Your task to perform on an android device: see creations saved in the google photos Image 0: 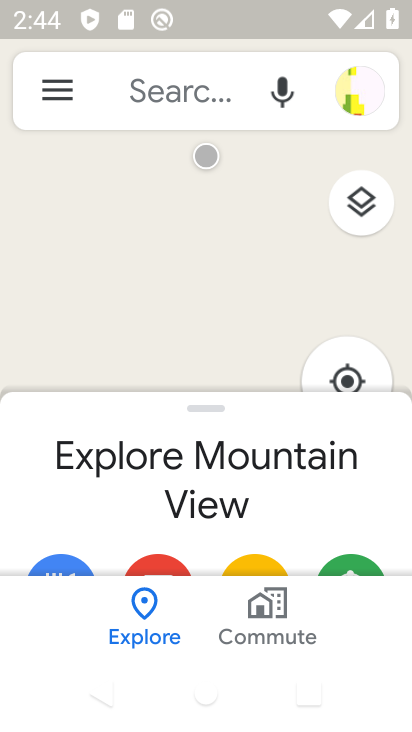
Step 0: press home button
Your task to perform on an android device: see creations saved in the google photos Image 1: 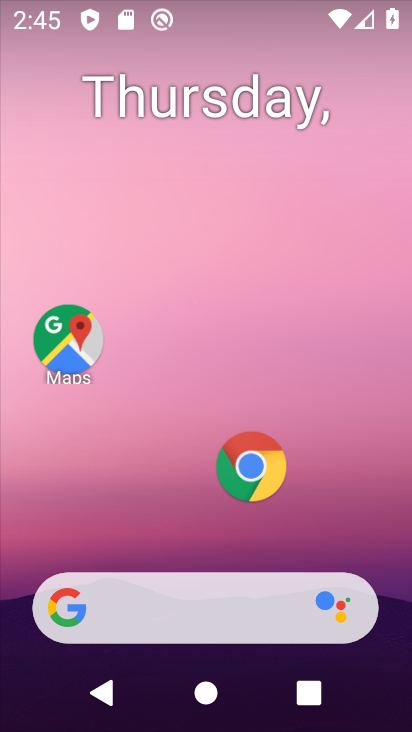
Step 1: drag from (201, 556) to (228, 193)
Your task to perform on an android device: see creations saved in the google photos Image 2: 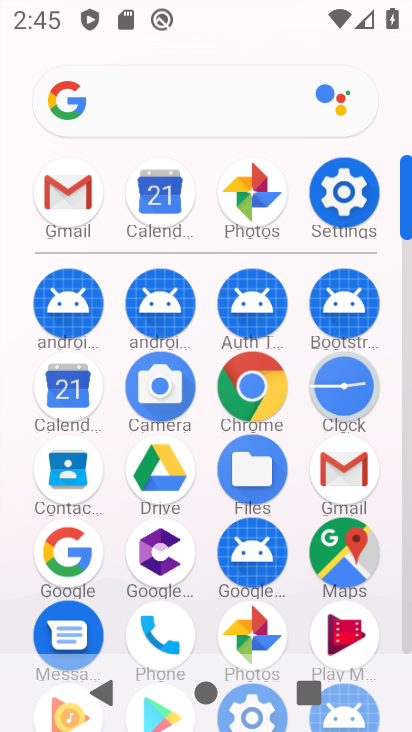
Step 2: click (235, 201)
Your task to perform on an android device: see creations saved in the google photos Image 3: 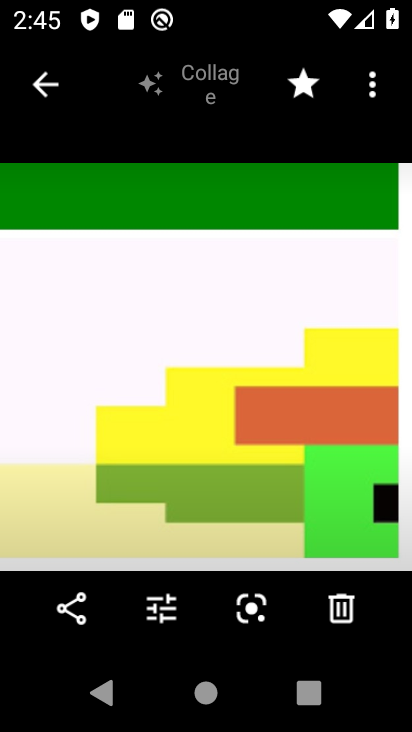
Step 3: click (49, 81)
Your task to perform on an android device: see creations saved in the google photos Image 4: 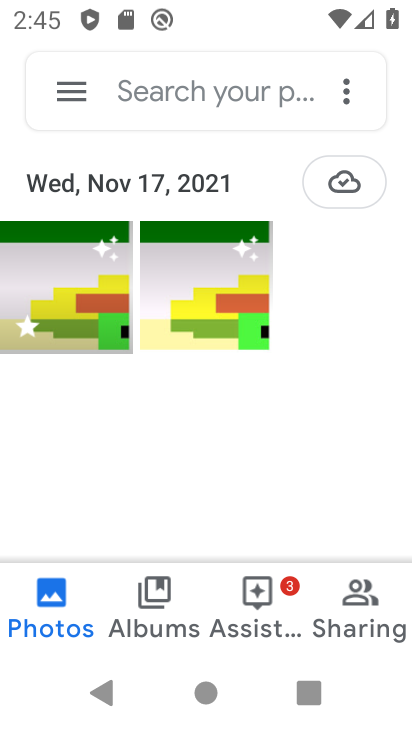
Step 4: click (195, 96)
Your task to perform on an android device: see creations saved in the google photos Image 5: 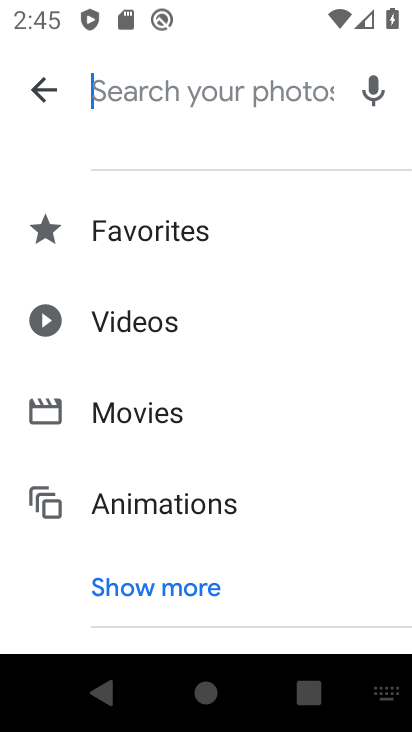
Step 5: click (199, 590)
Your task to perform on an android device: see creations saved in the google photos Image 6: 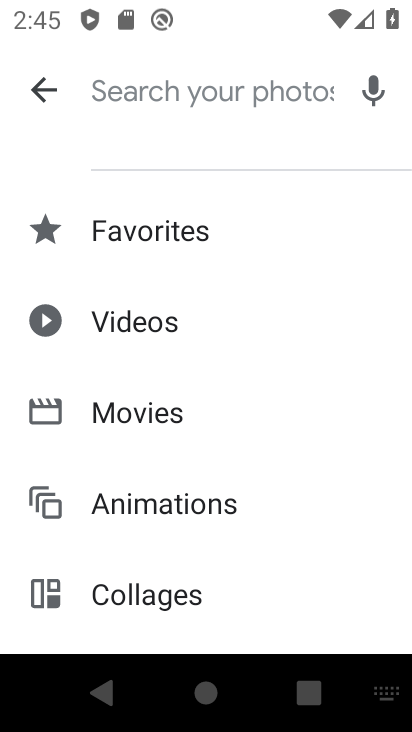
Step 6: drag from (212, 585) to (243, 298)
Your task to perform on an android device: see creations saved in the google photos Image 7: 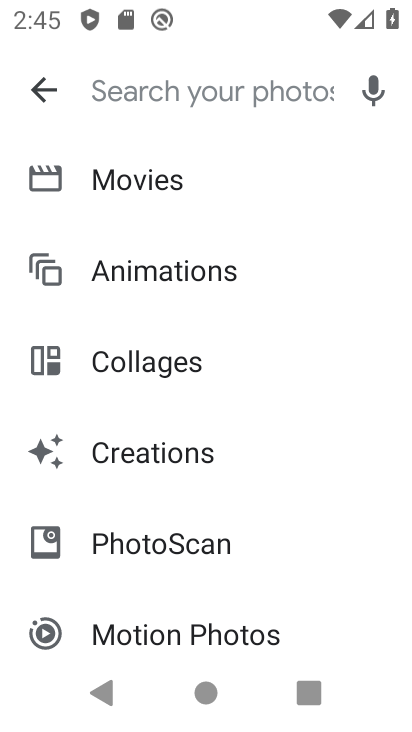
Step 7: click (195, 459)
Your task to perform on an android device: see creations saved in the google photos Image 8: 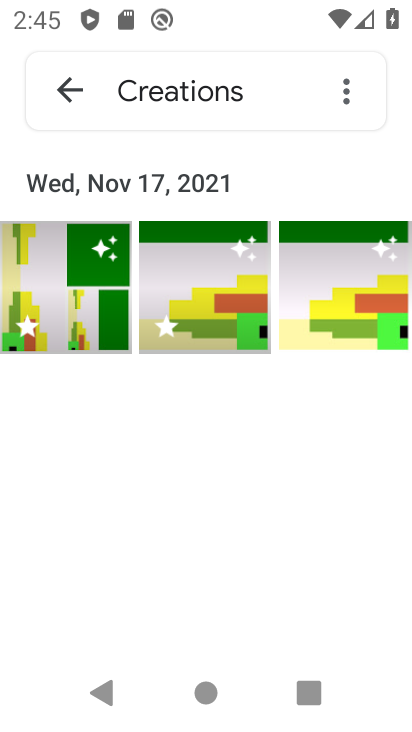
Step 8: click (106, 310)
Your task to perform on an android device: see creations saved in the google photos Image 9: 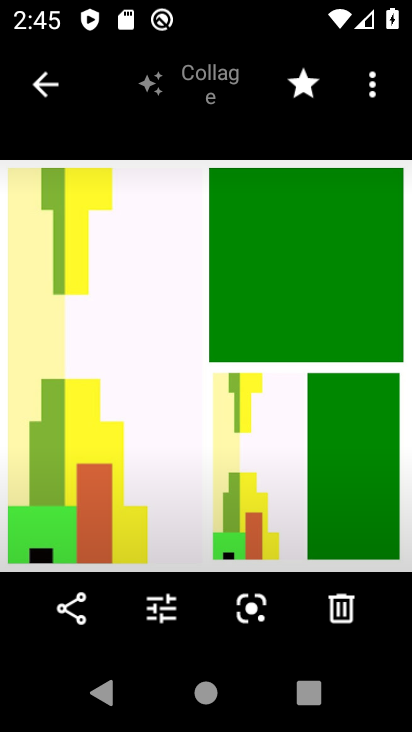
Step 9: task complete